Your task to perform on an android device: Show me recent news Image 0: 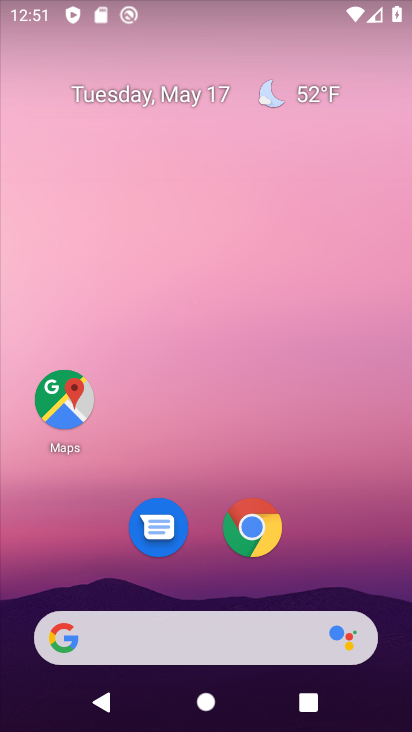
Step 0: drag from (7, 298) to (376, 270)
Your task to perform on an android device: Show me recent news Image 1: 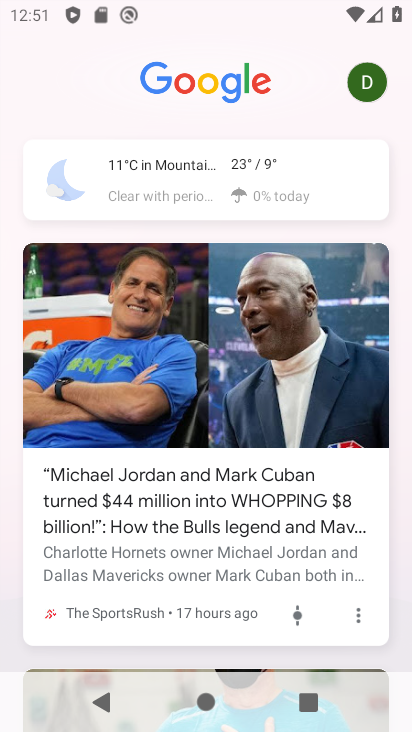
Step 1: task complete